Your task to perform on an android device: toggle location history Image 0: 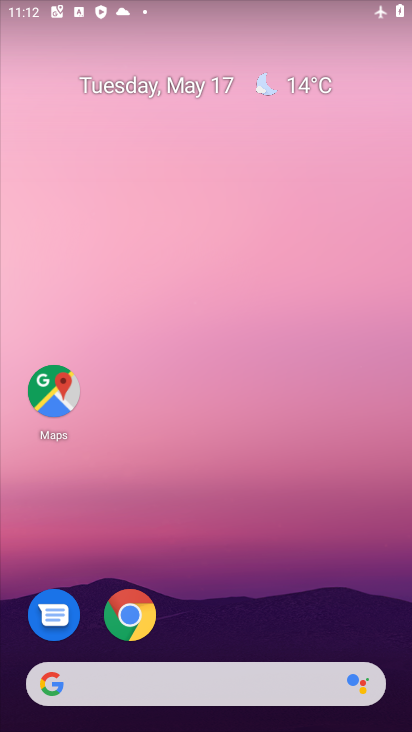
Step 0: click (47, 381)
Your task to perform on an android device: toggle location history Image 1: 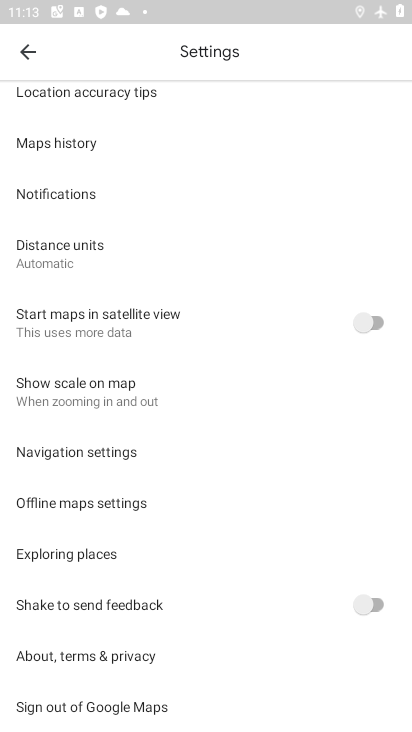
Step 1: drag from (187, 213) to (208, 568)
Your task to perform on an android device: toggle location history Image 2: 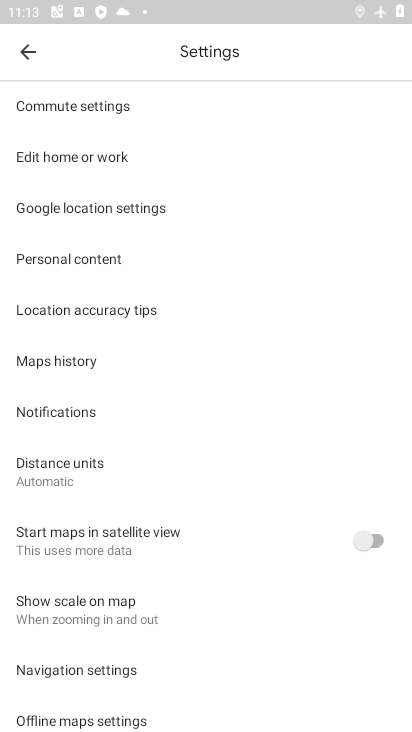
Step 2: click (99, 253)
Your task to perform on an android device: toggle location history Image 3: 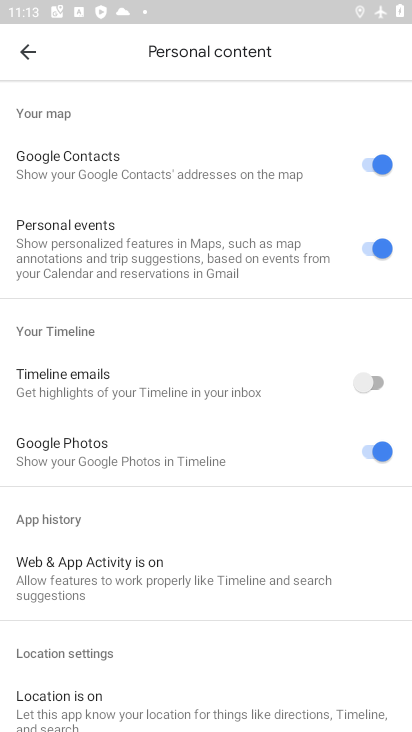
Step 3: drag from (177, 588) to (174, 257)
Your task to perform on an android device: toggle location history Image 4: 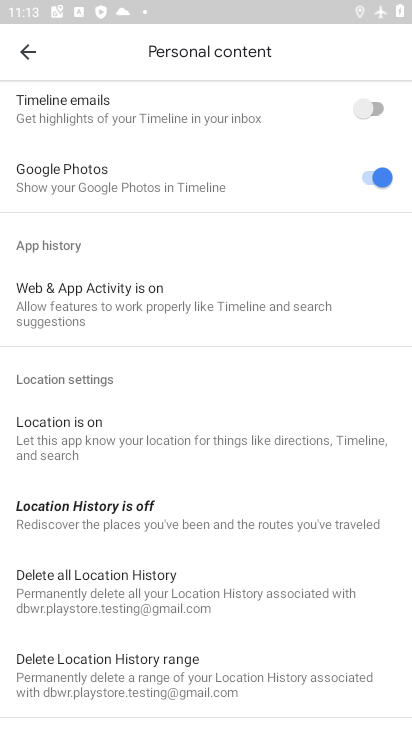
Step 4: click (97, 508)
Your task to perform on an android device: toggle location history Image 5: 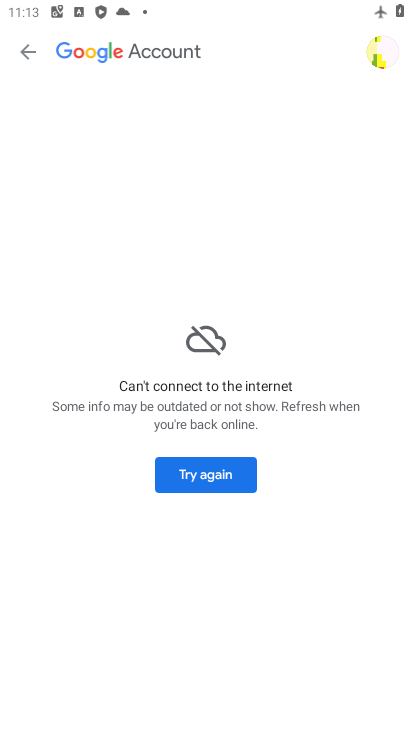
Step 5: click (215, 468)
Your task to perform on an android device: toggle location history Image 6: 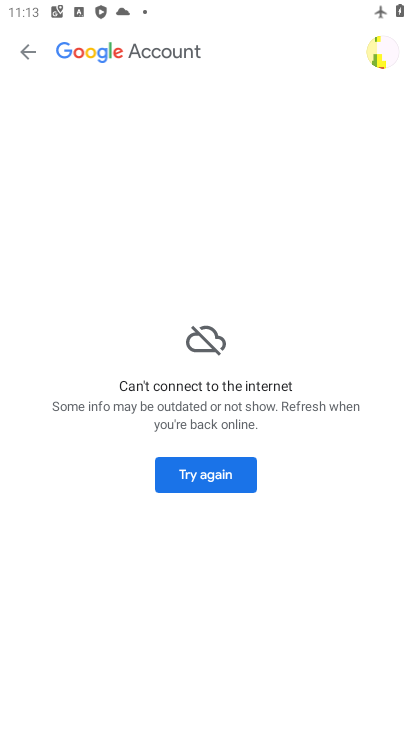
Step 6: task complete